Your task to perform on an android device: Open battery settings Image 0: 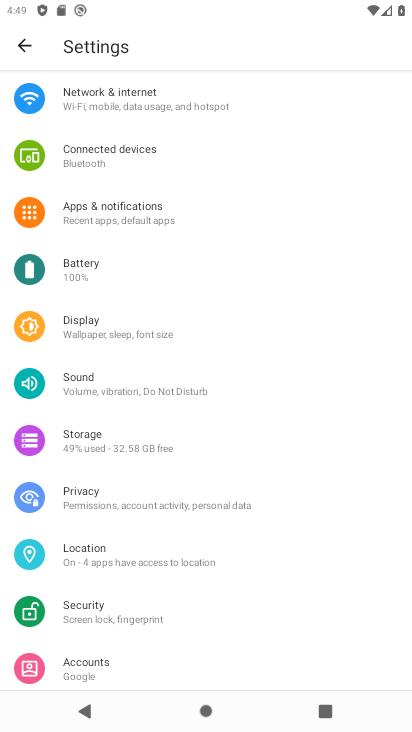
Step 0: click (103, 264)
Your task to perform on an android device: Open battery settings Image 1: 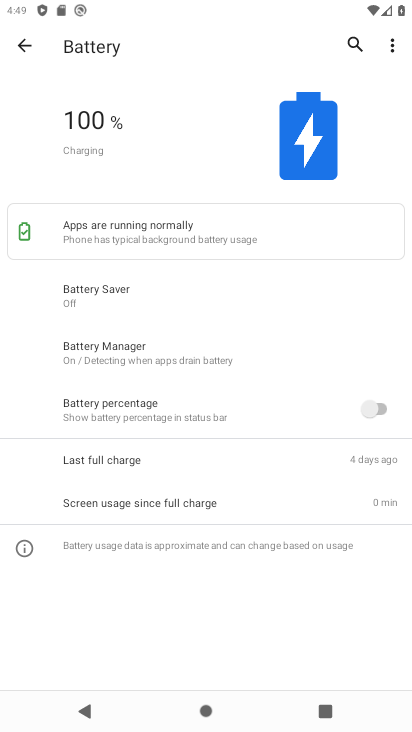
Step 1: task complete